Your task to perform on an android device: toggle translation in the chrome app Image 0: 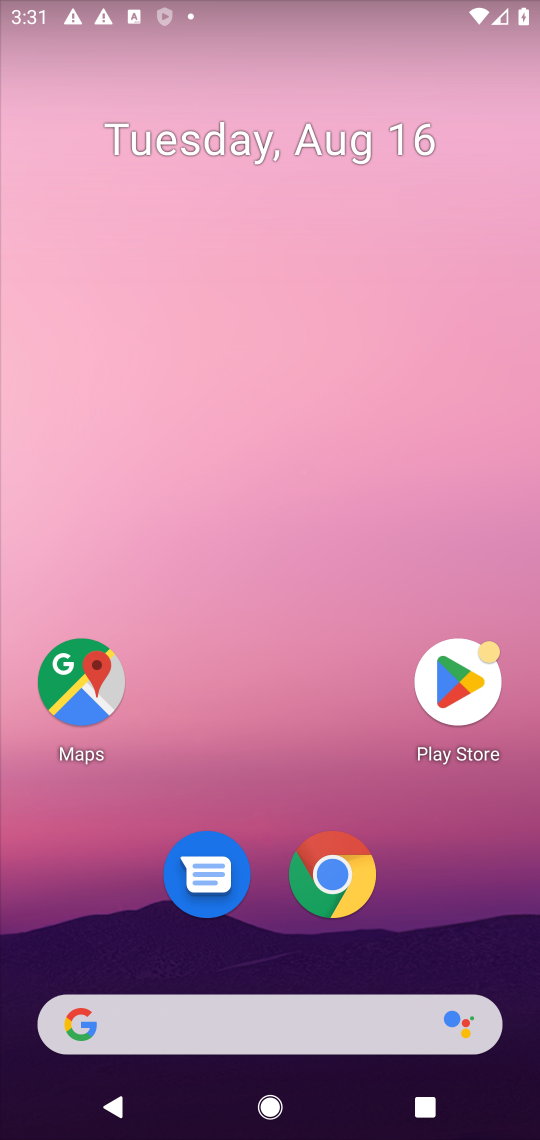
Step 0: click (344, 859)
Your task to perform on an android device: toggle translation in the chrome app Image 1: 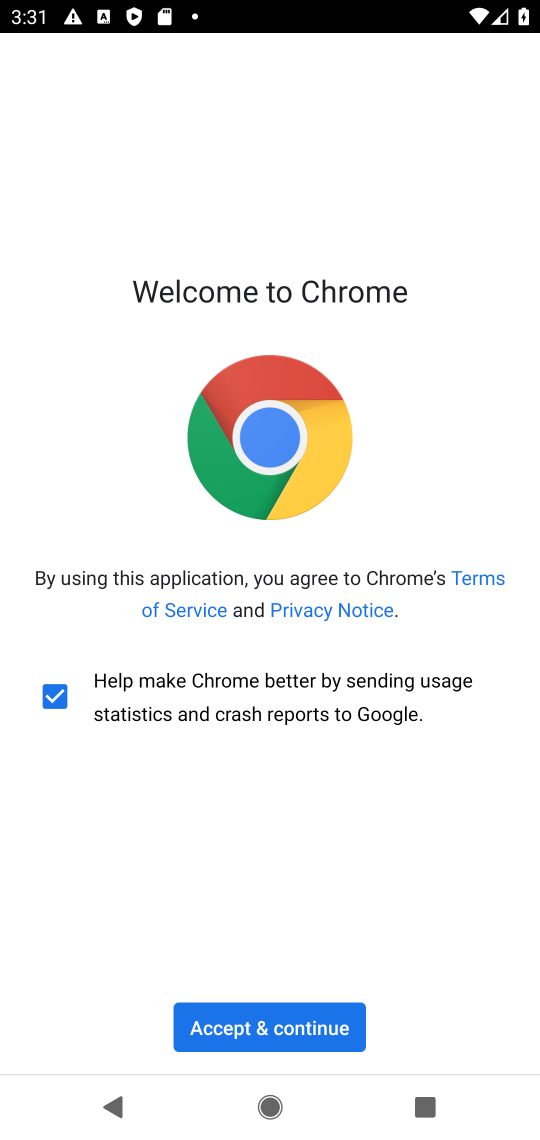
Step 1: click (280, 1016)
Your task to perform on an android device: toggle translation in the chrome app Image 2: 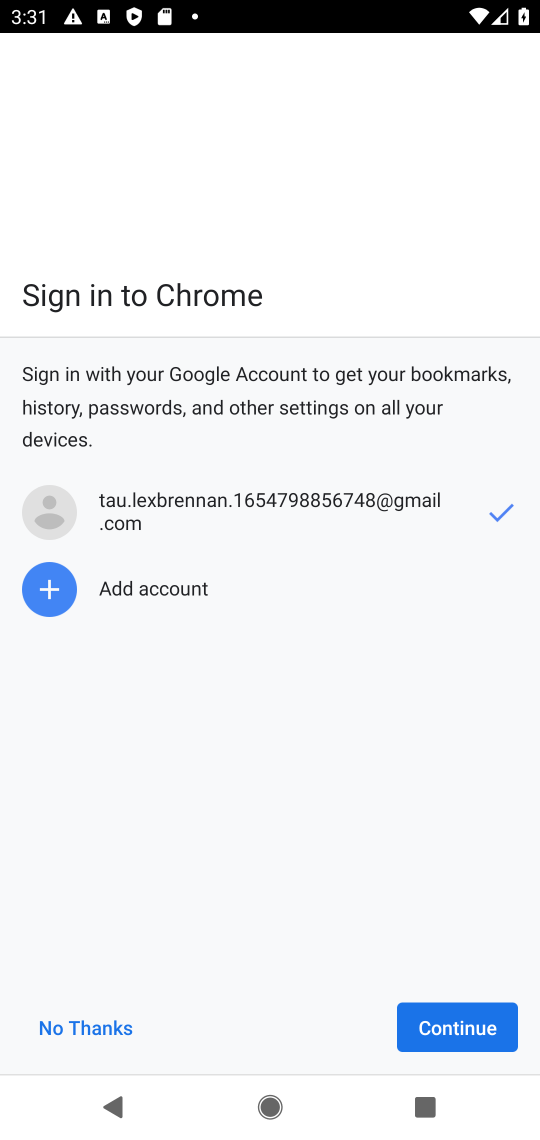
Step 2: click (485, 1042)
Your task to perform on an android device: toggle translation in the chrome app Image 3: 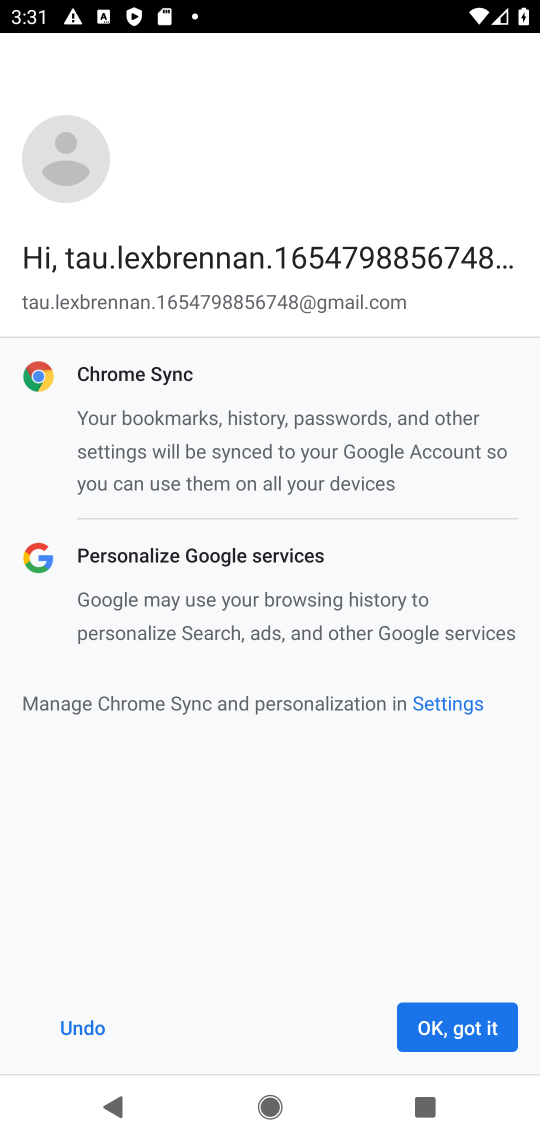
Step 3: click (461, 1033)
Your task to perform on an android device: toggle translation in the chrome app Image 4: 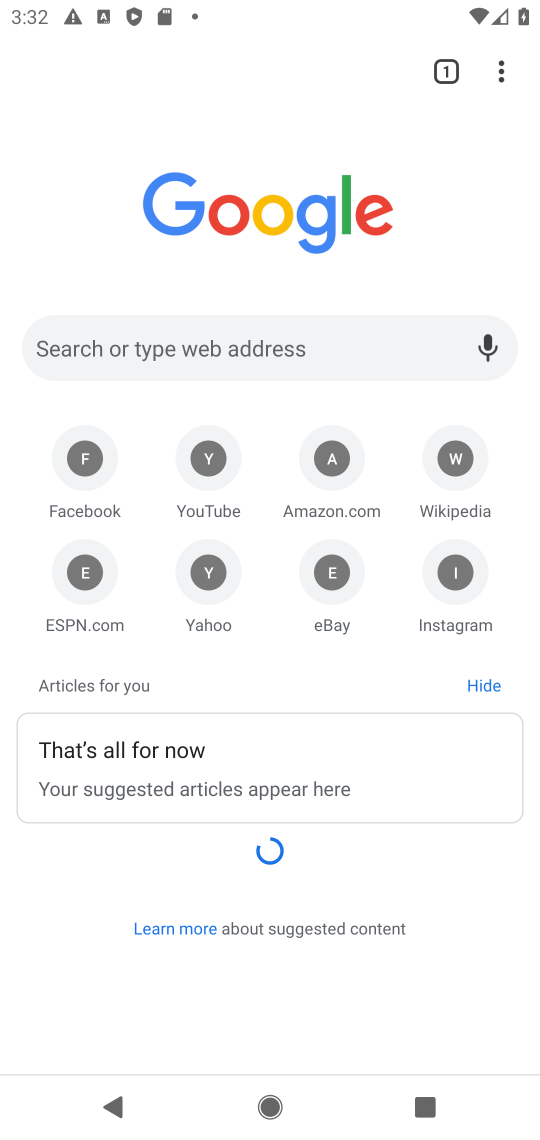
Step 4: click (501, 86)
Your task to perform on an android device: toggle translation in the chrome app Image 5: 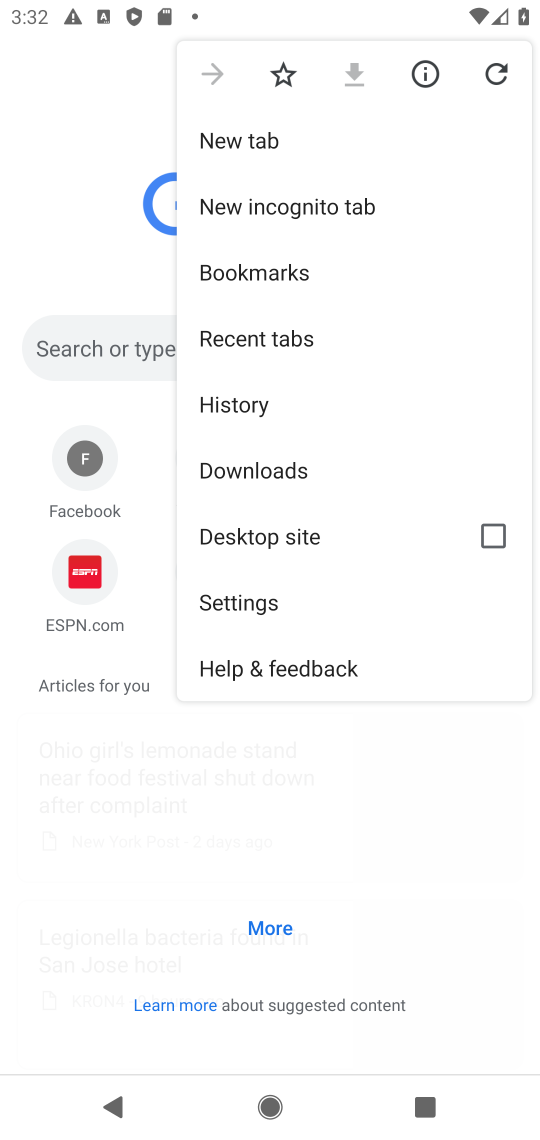
Step 5: click (274, 599)
Your task to perform on an android device: toggle translation in the chrome app Image 6: 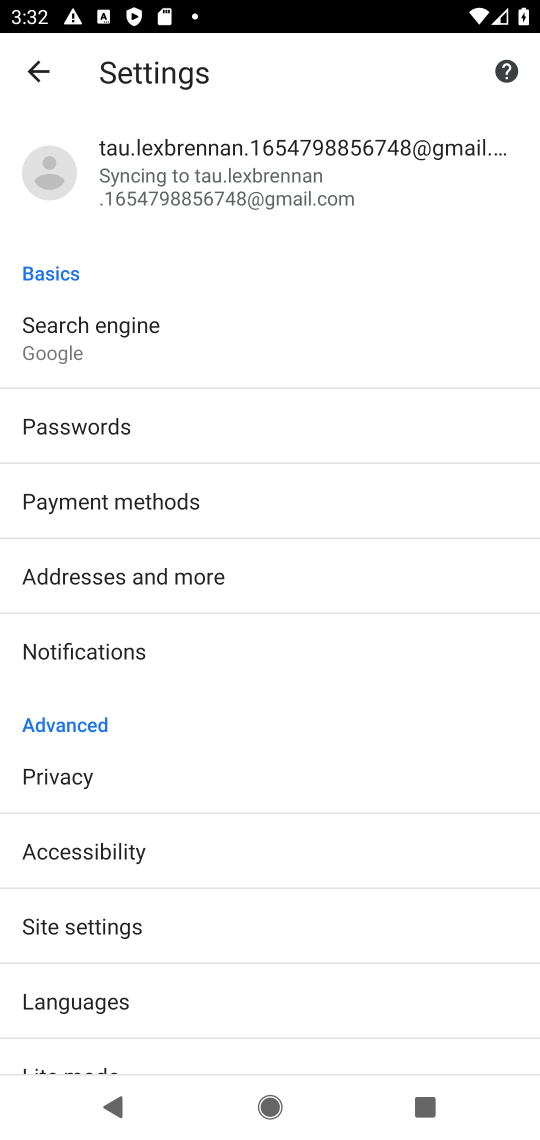
Step 6: click (163, 917)
Your task to perform on an android device: toggle translation in the chrome app Image 7: 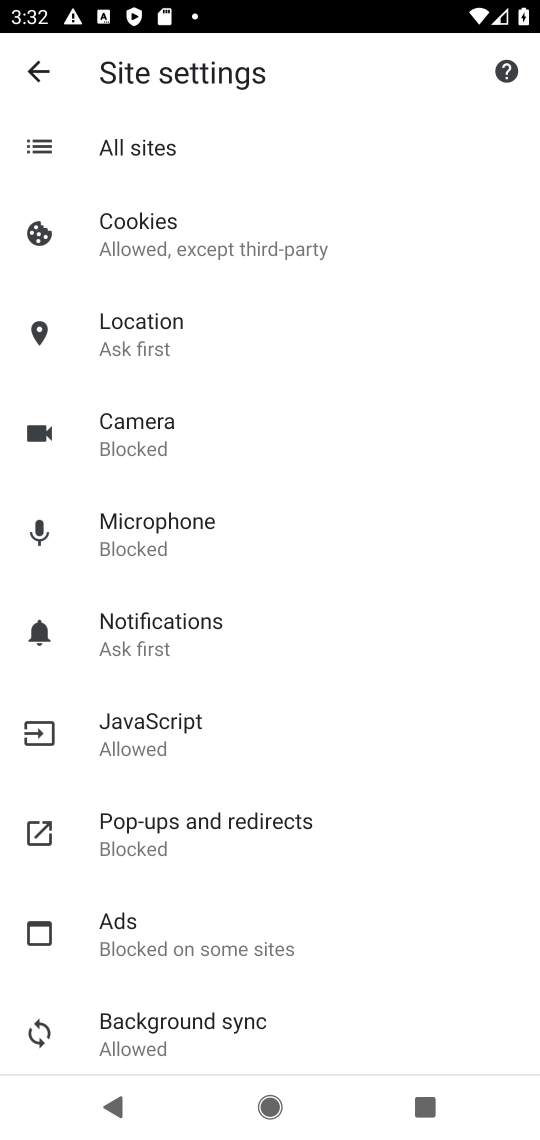
Step 7: drag from (322, 886) to (272, 65)
Your task to perform on an android device: toggle translation in the chrome app Image 8: 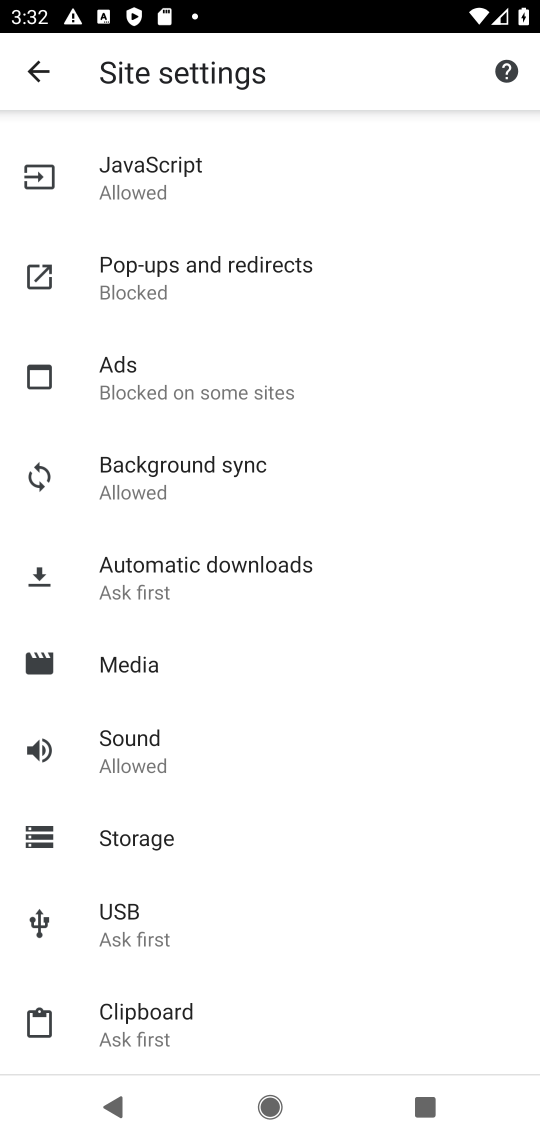
Step 8: drag from (296, 979) to (267, 368)
Your task to perform on an android device: toggle translation in the chrome app Image 9: 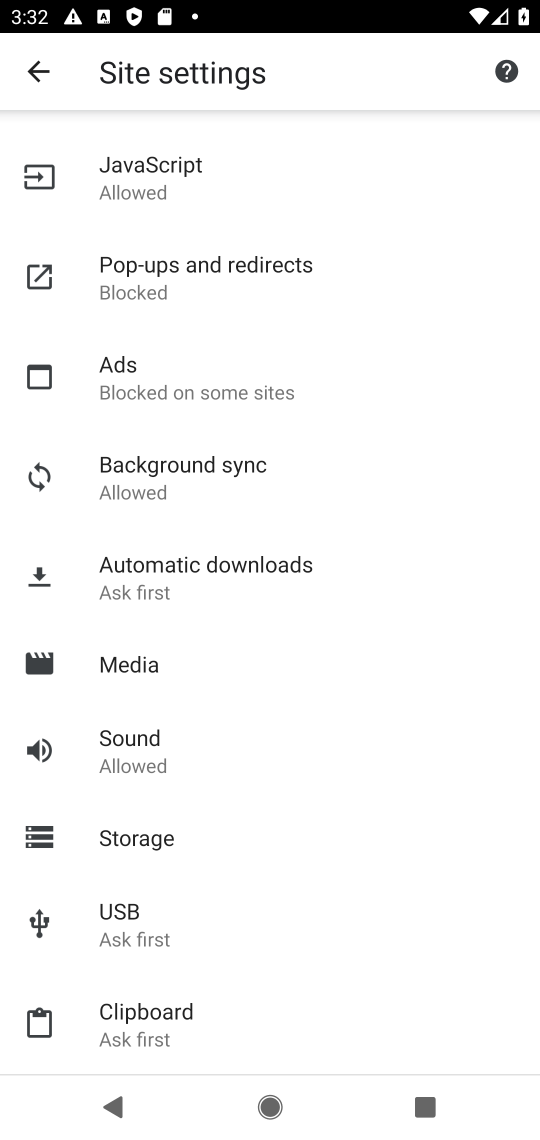
Step 9: drag from (289, 286) to (392, 1026)
Your task to perform on an android device: toggle translation in the chrome app Image 10: 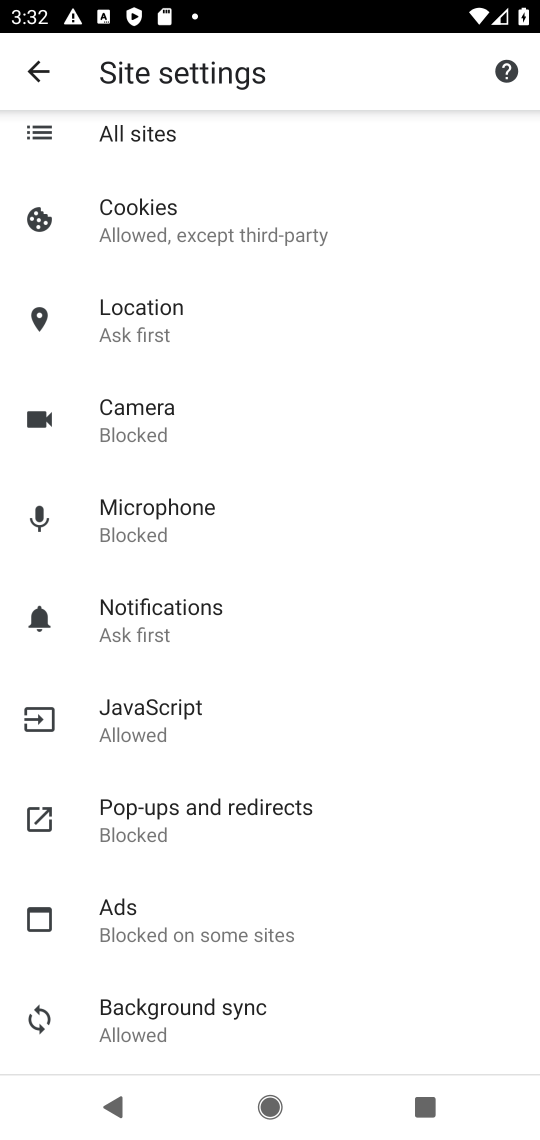
Step 10: drag from (331, 287) to (421, 926)
Your task to perform on an android device: toggle translation in the chrome app Image 11: 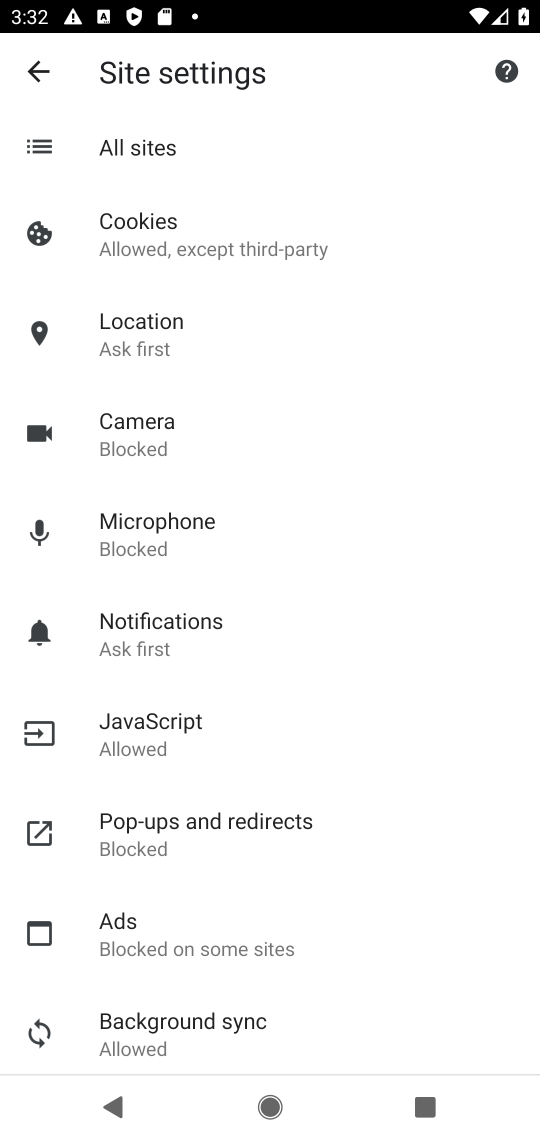
Step 11: click (38, 78)
Your task to perform on an android device: toggle translation in the chrome app Image 12: 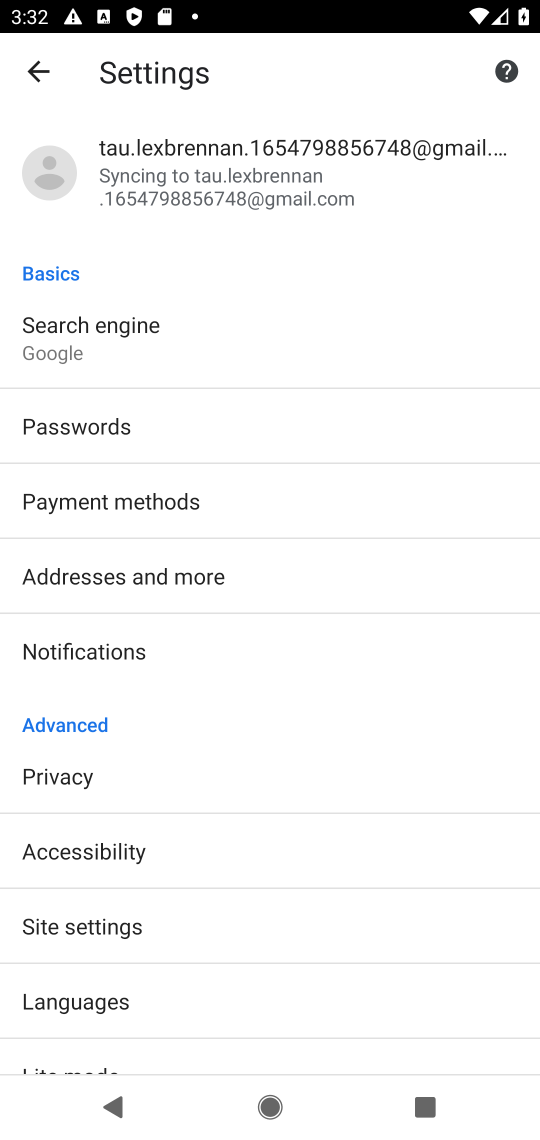
Step 12: click (222, 1010)
Your task to perform on an android device: toggle translation in the chrome app Image 13: 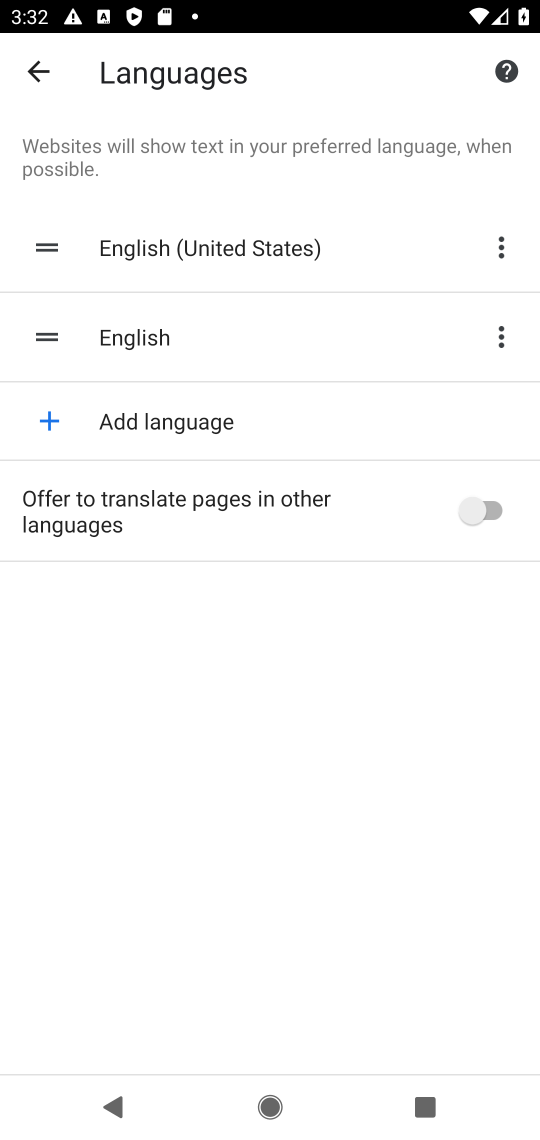
Step 13: click (502, 509)
Your task to perform on an android device: toggle translation in the chrome app Image 14: 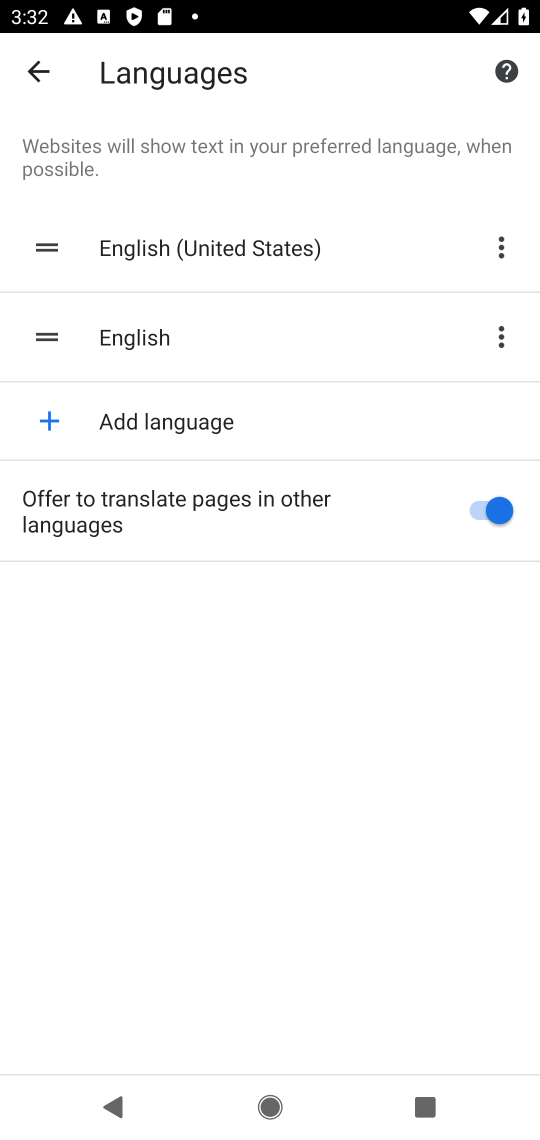
Step 14: task complete